Your task to perform on an android device: Find coffee shops on Maps Image 0: 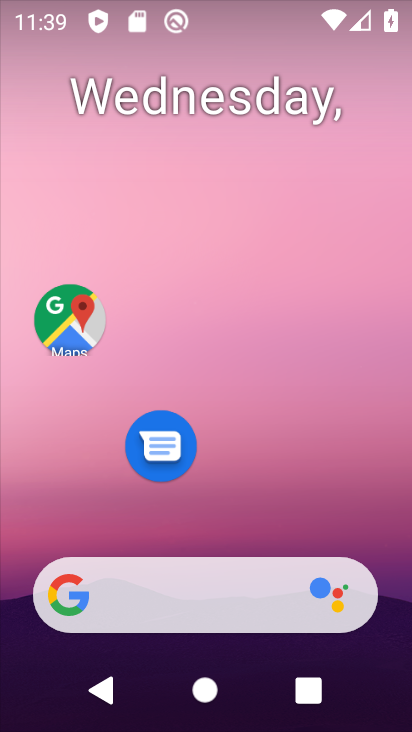
Step 0: click (71, 322)
Your task to perform on an android device: Find coffee shops on Maps Image 1: 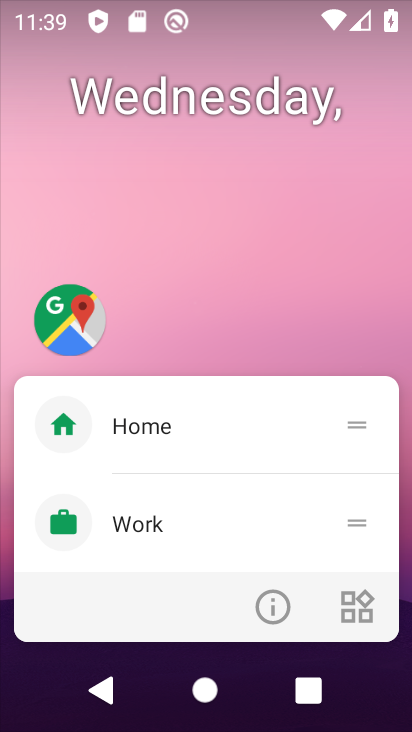
Step 1: click (72, 325)
Your task to perform on an android device: Find coffee shops on Maps Image 2: 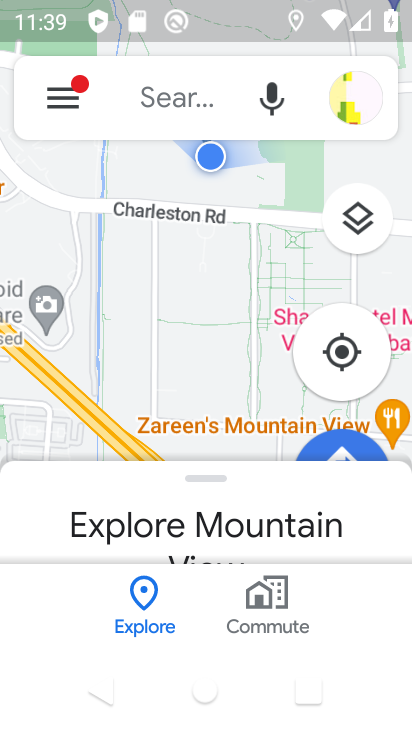
Step 2: click (195, 89)
Your task to perform on an android device: Find coffee shops on Maps Image 3: 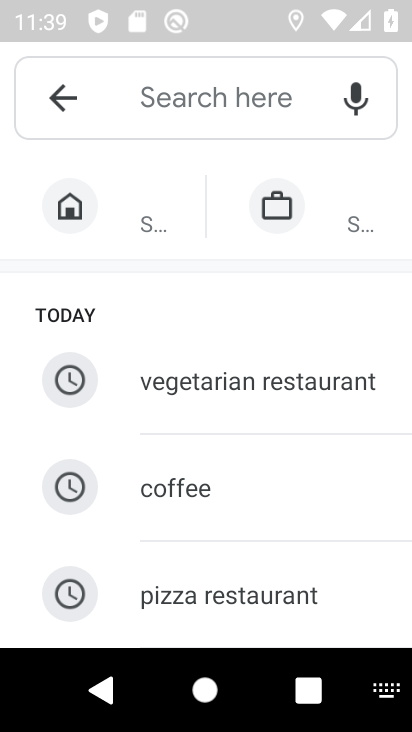
Step 3: click (179, 488)
Your task to perform on an android device: Find coffee shops on Maps Image 4: 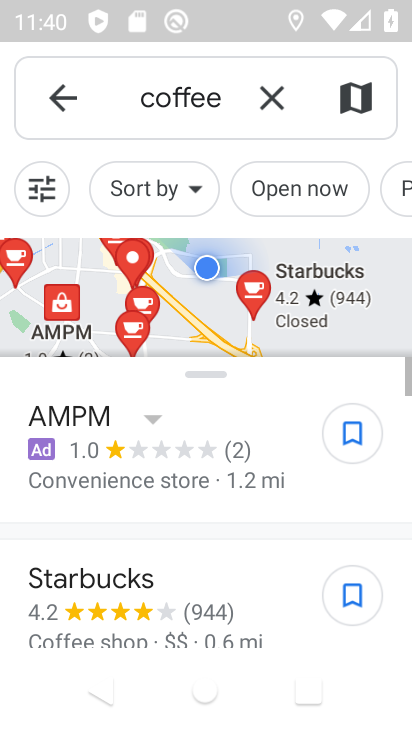
Step 4: task complete